Your task to perform on an android device: turn on location history Image 0: 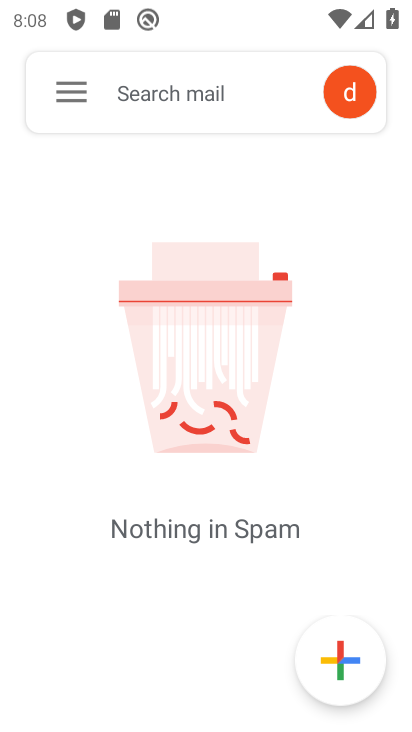
Step 0: press home button
Your task to perform on an android device: turn on location history Image 1: 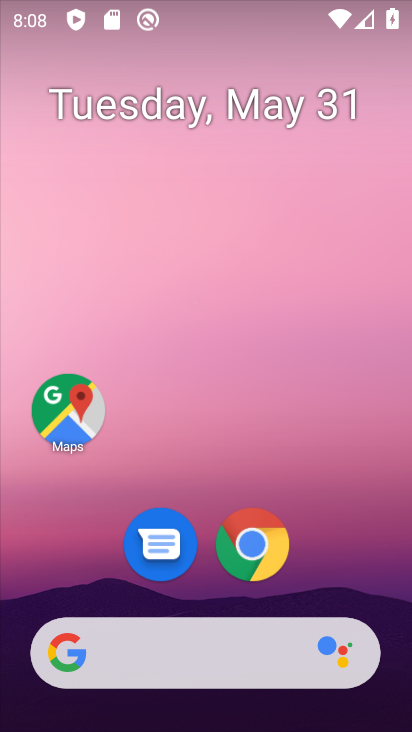
Step 1: drag from (191, 637) to (216, 12)
Your task to perform on an android device: turn on location history Image 2: 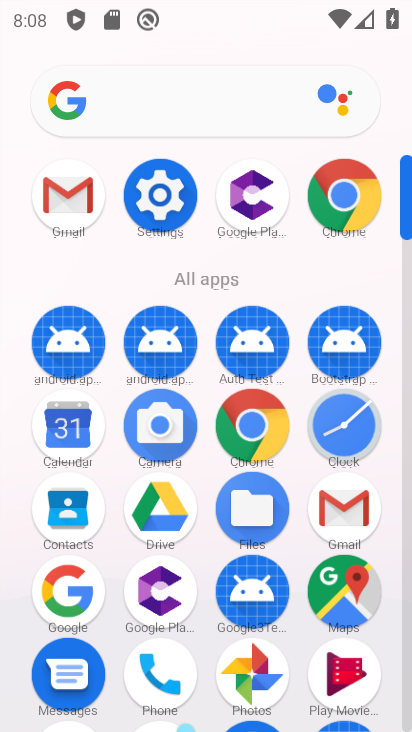
Step 2: click (162, 232)
Your task to perform on an android device: turn on location history Image 3: 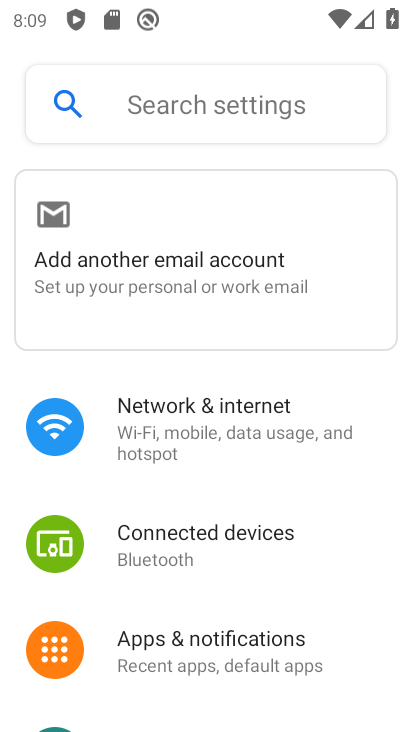
Step 3: drag from (136, 544) to (176, 89)
Your task to perform on an android device: turn on location history Image 4: 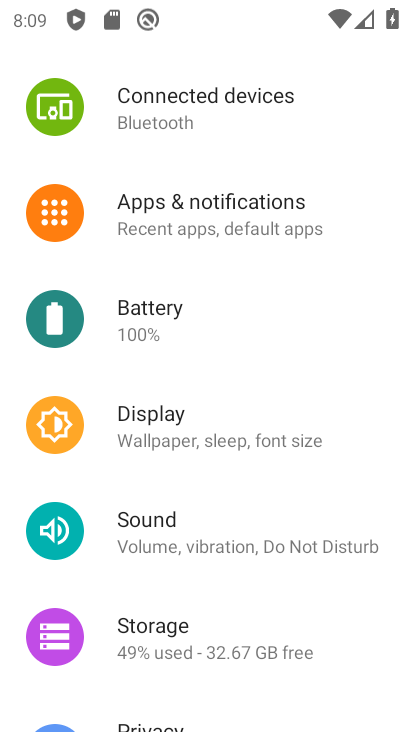
Step 4: drag from (262, 586) to (221, 94)
Your task to perform on an android device: turn on location history Image 5: 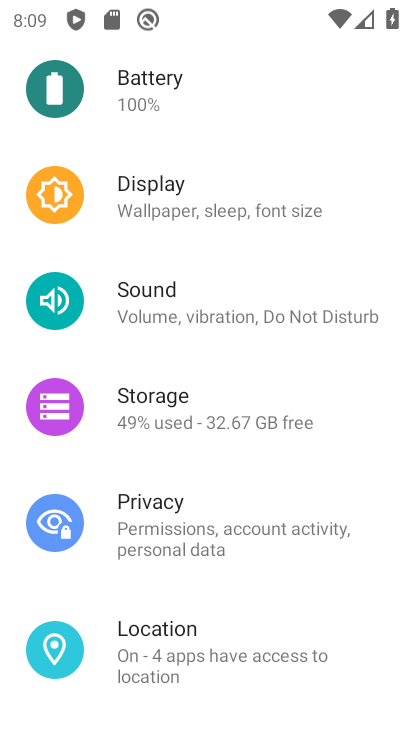
Step 5: click (178, 634)
Your task to perform on an android device: turn on location history Image 6: 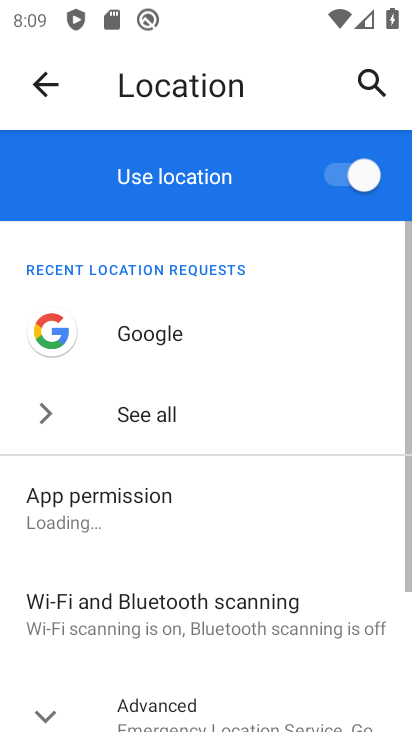
Step 6: drag from (206, 524) to (225, 188)
Your task to perform on an android device: turn on location history Image 7: 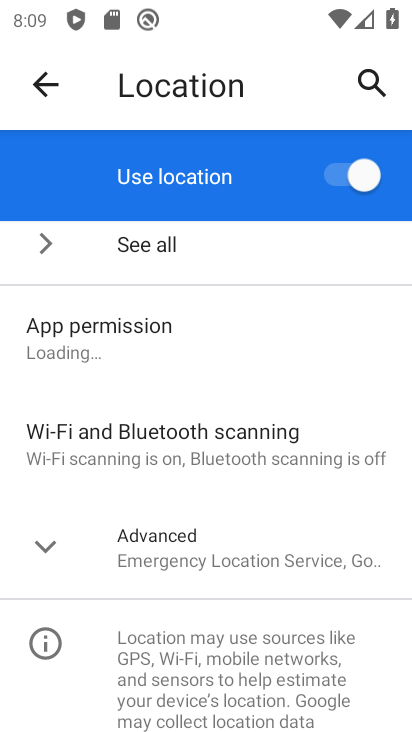
Step 7: click (192, 529)
Your task to perform on an android device: turn on location history Image 8: 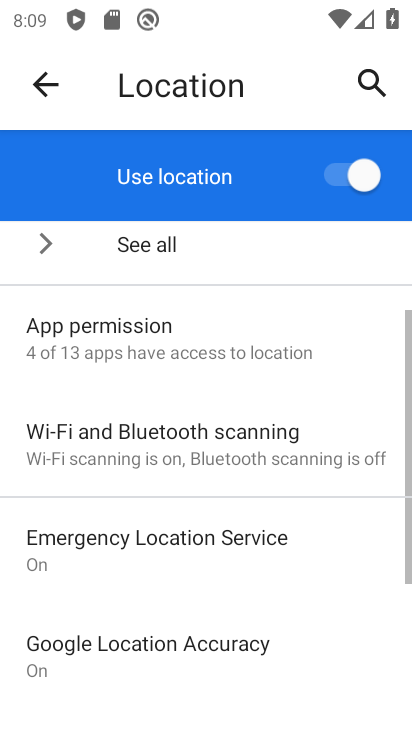
Step 8: drag from (197, 545) to (181, 219)
Your task to perform on an android device: turn on location history Image 9: 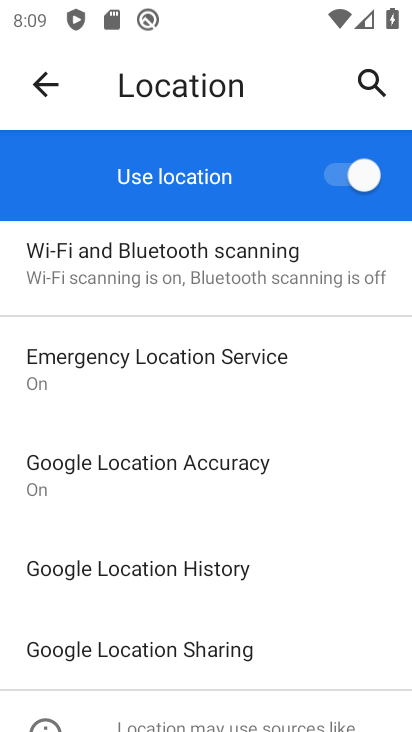
Step 9: click (198, 568)
Your task to perform on an android device: turn on location history Image 10: 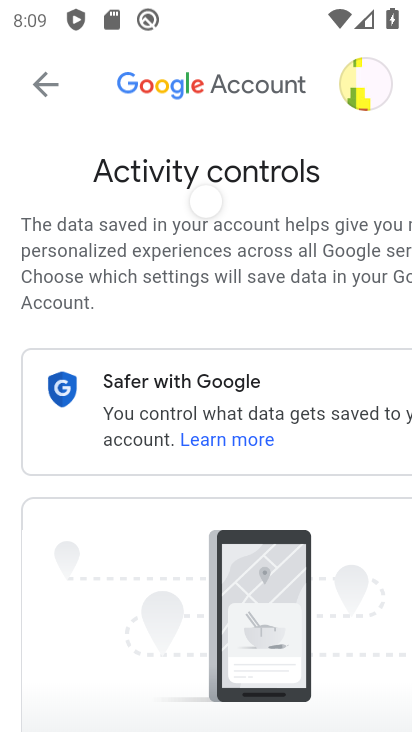
Step 10: drag from (344, 577) to (74, 111)
Your task to perform on an android device: turn on location history Image 11: 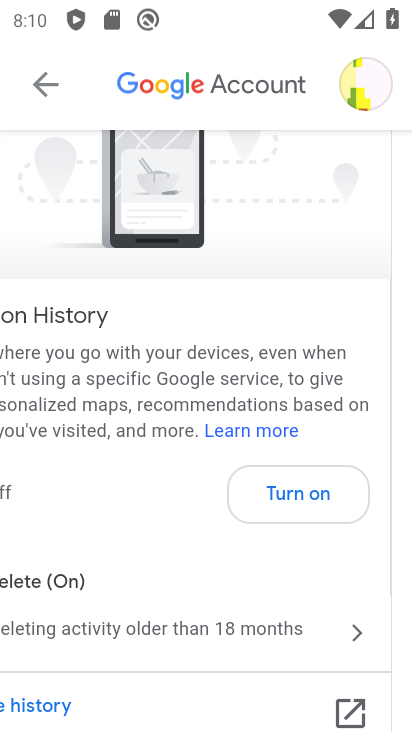
Step 11: click (303, 500)
Your task to perform on an android device: turn on location history Image 12: 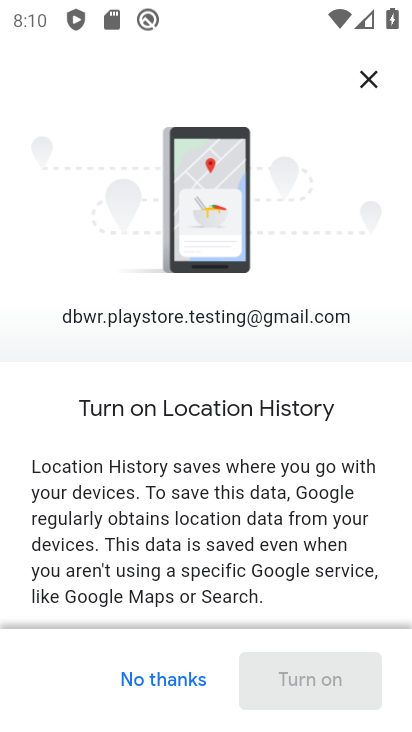
Step 12: drag from (295, 574) to (73, 8)
Your task to perform on an android device: turn on location history Image 13: 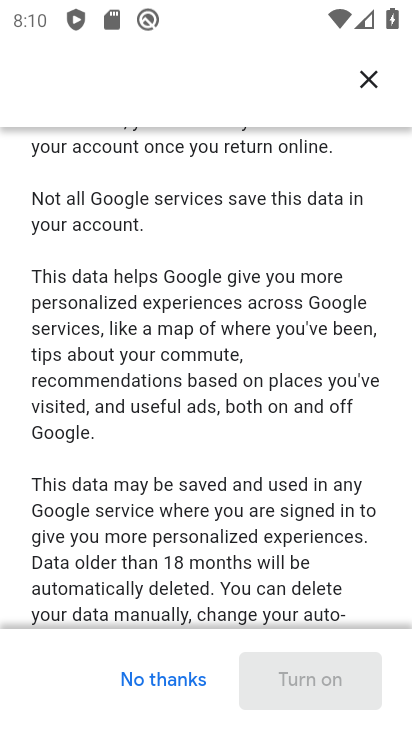
Step 13: drag from (277, 521) to (7, 144)
Your task to perform on an android device: turn on location history Image 14: 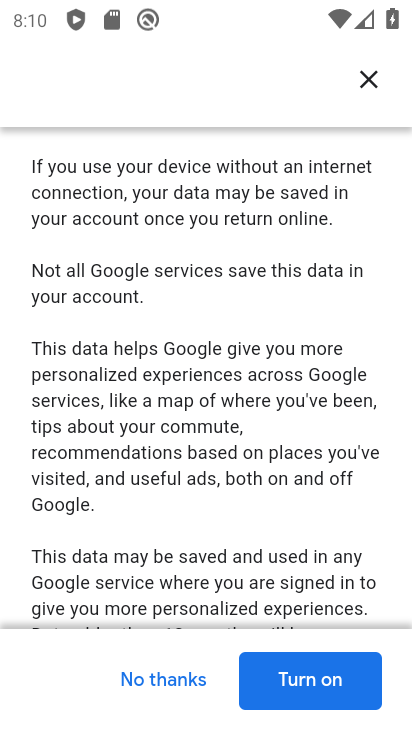
Step 14: click (325, 682)
Your task to perform on an android device: turn on location history Image 15: 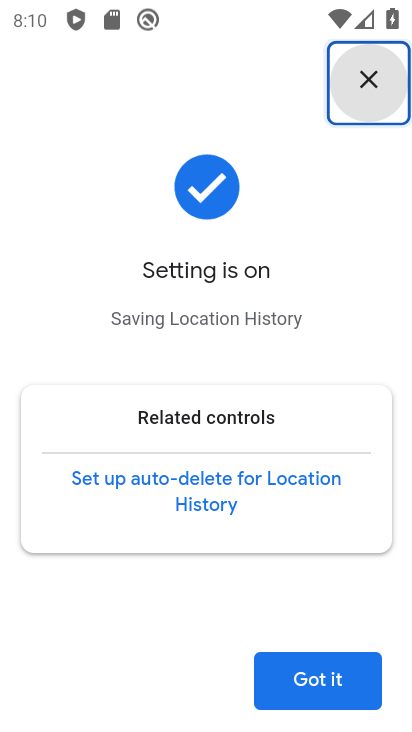
Step 15: click (336, 691)
Your task to perform on an android device: turn on location history Image 16: 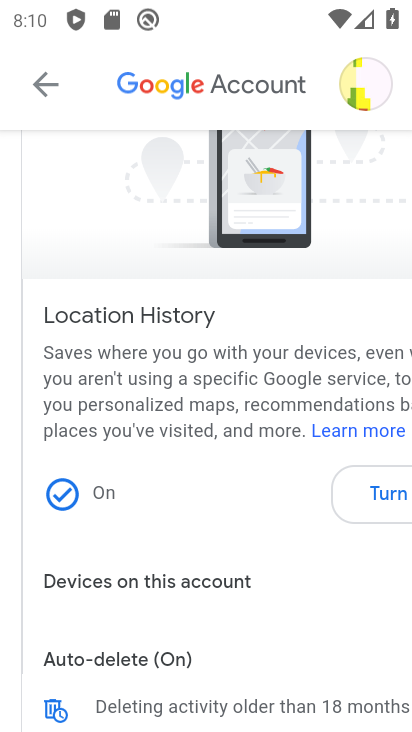
Step 16: task complete